Your task to perform on an android device: Set the phone to "Do not disturb". Image 0: 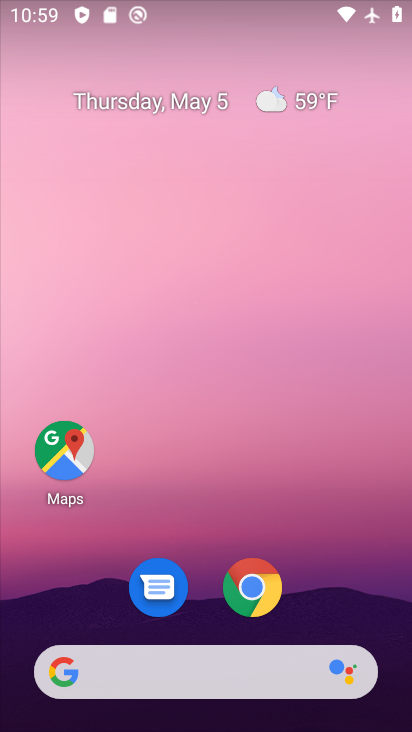
Step 0: drag from (249, 345) to (219, 0)
Your task to perform on an android device: Set the phone to "Do not disturb". Image 1: 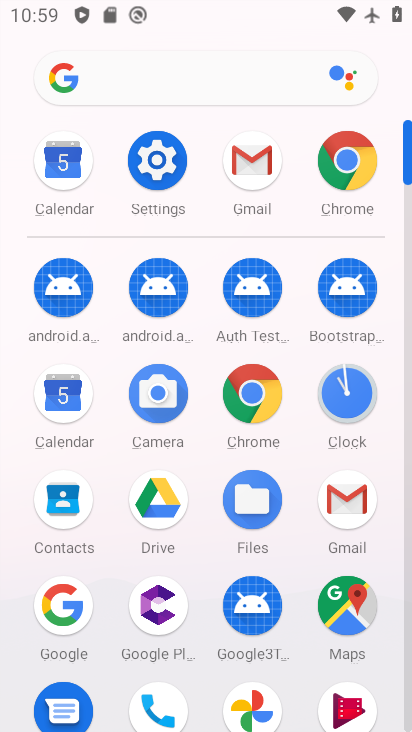
Step 1: drag from (8, 531) to (5, 189)
Your task to perform on an android device: Set the phone to "Do not disturb". Image 2: 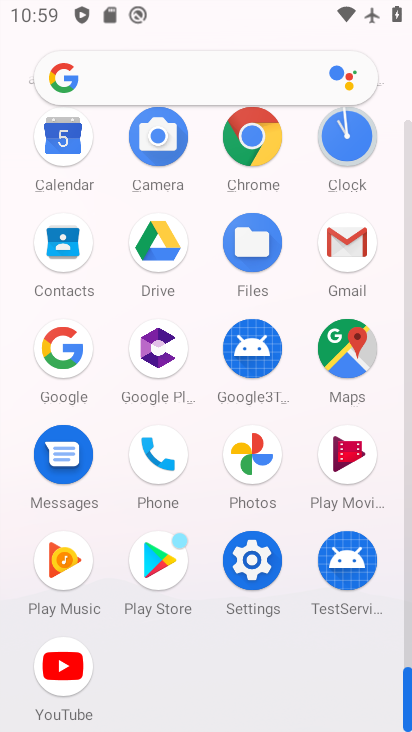
Step 2: click (252, 558)
Your task to perform on an android device: Set the phone to "Do not disturb". Image 3: 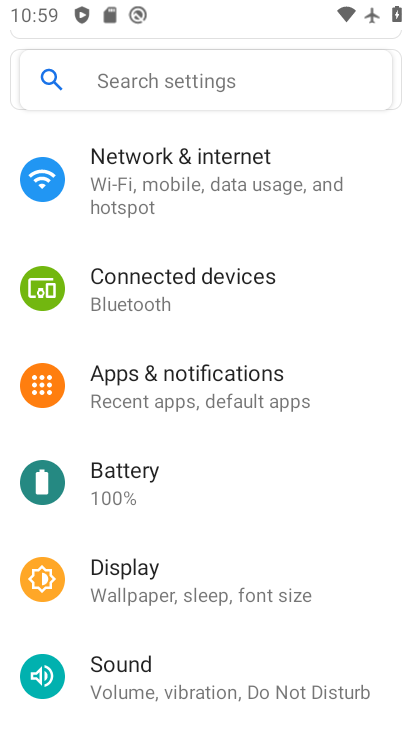
Step 3: click (225, 681)
Your task to perform on an android device: Set the phone to "Do not disturb". Image 4: 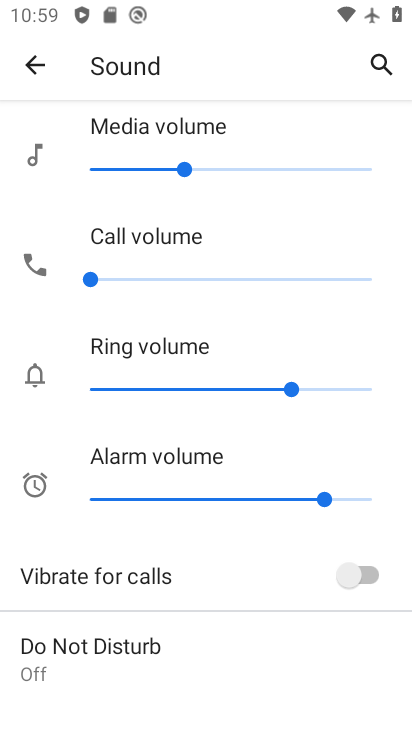
Step 4: drag from (203, 591) to (185, 147)
Your task to perform on an android device: Set the phone to "Do not disturb". Image 5: 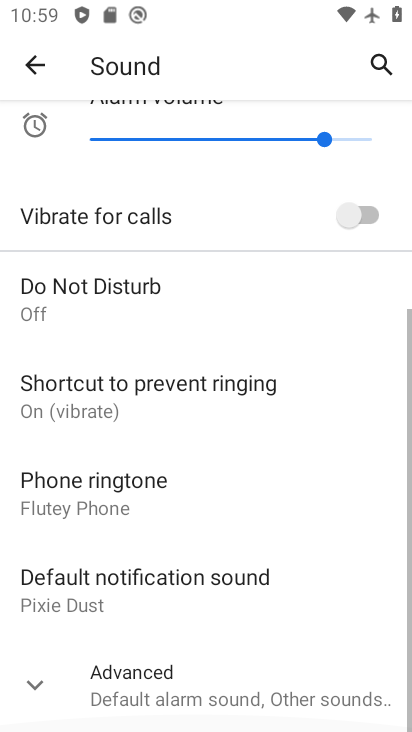
Step 5: click (82, 647)
Your task to perform on an android device: Set the phone to "Do not disturb". Image 6: 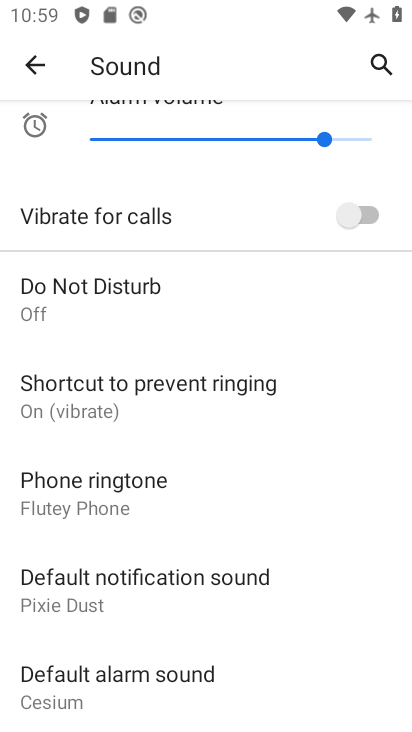
Step 6: click (135, 272)
Your task to perform on an android device: Set the phone to "Do not disturb". Image 7: 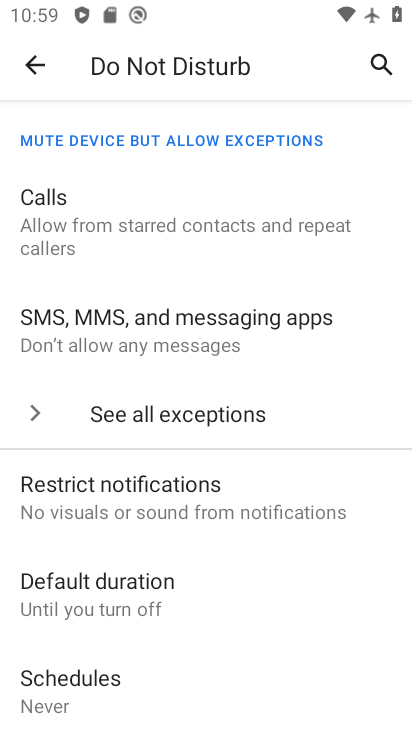
Step 7: drag from (214, 581) to (285, 125)
Your task to perform on an android device: Set the phone to "Do not disturb". Image 8: 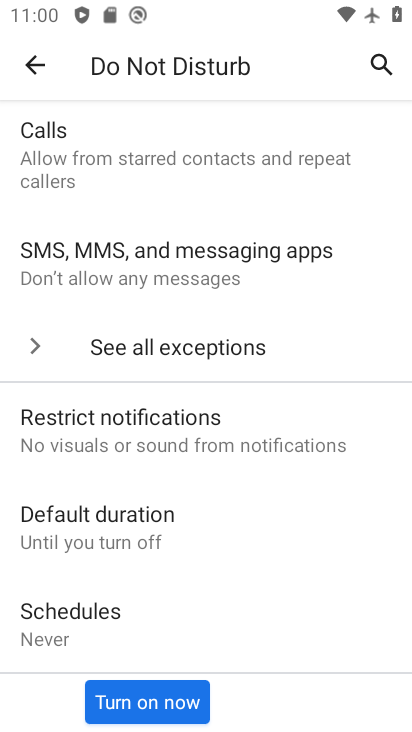
Step 8: click (133, 698)
Your task to perform on an android device: Set the phone to "Do not disturb". Image 9: 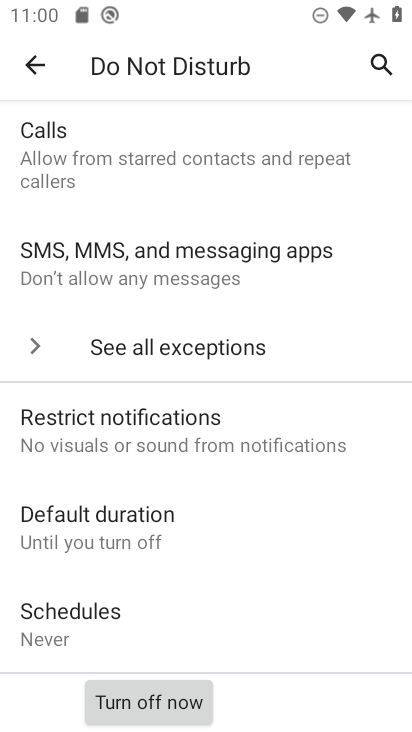
Step 9: task complete